Your task to perform on an android device: Open Chrome and go to settings Image 0: 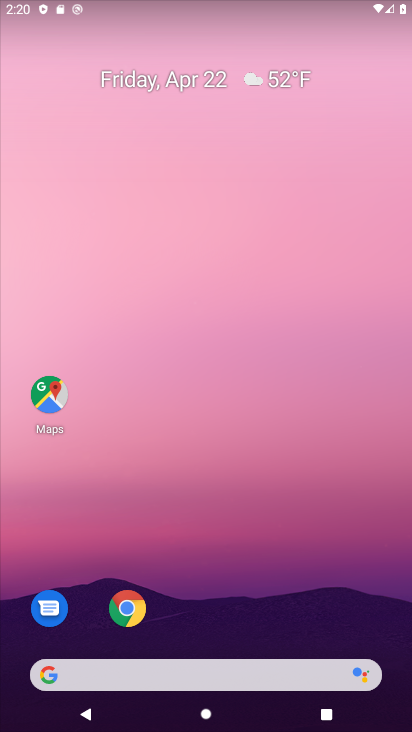
Step 0: drag from (308, 558) to (330, 682)
Your task to perform on an android device: Open Chrome and go to settings Image 1: 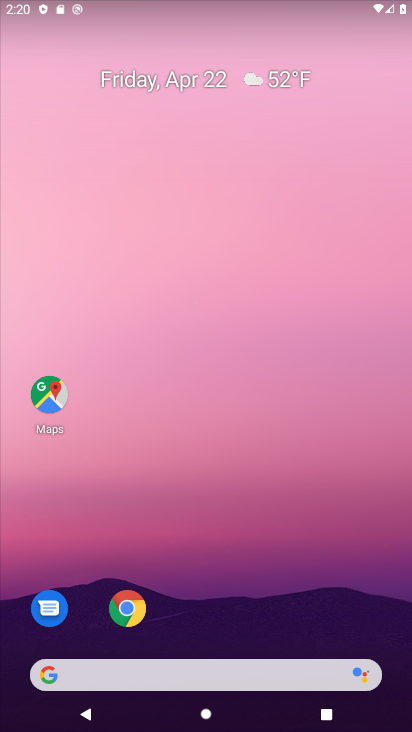
Step 1: click (131, 612)
Your task to perform on an android device: Open Chrome and go to settings Image 2: 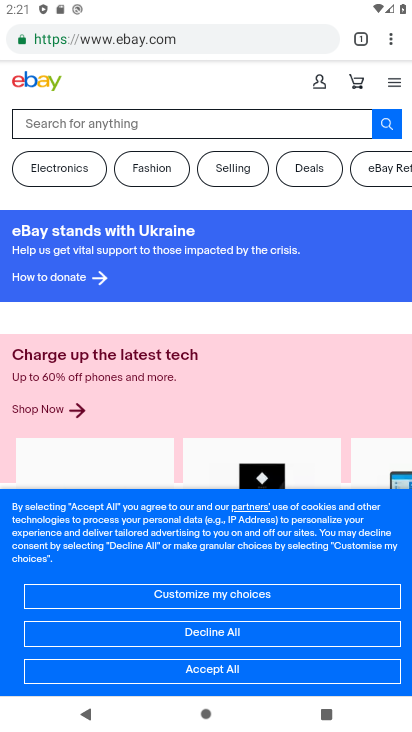
Step 2: click (394, 35)
Your task to perform on an android device: Open Chrome and go to settings Image 3: 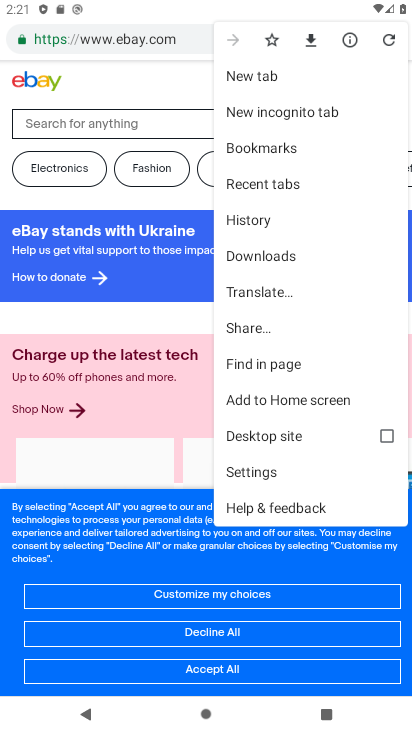
Step 3: click (255, 467)
Your task to perform on an android device: Open Chrome and go to settings Image 4: 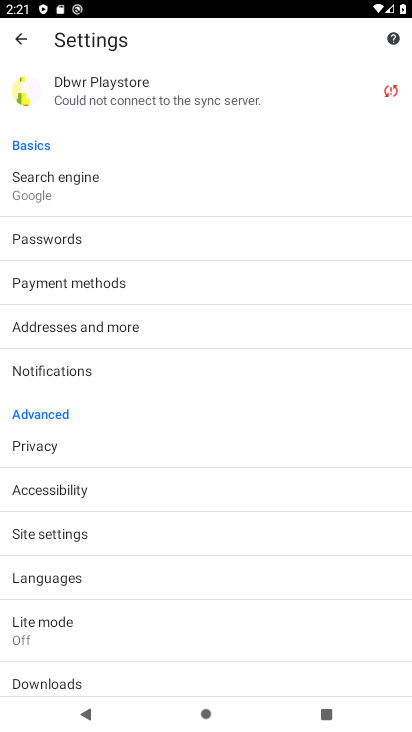
Step 4: task complete